Your task to perform on an android device: Open Amazon Image 0: 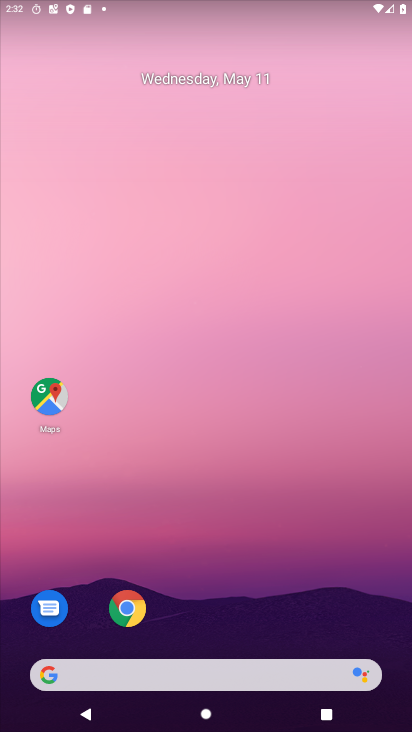
Step 0: click (138, 608)
Your task to perform on an android device: Open Amazon Image 1: 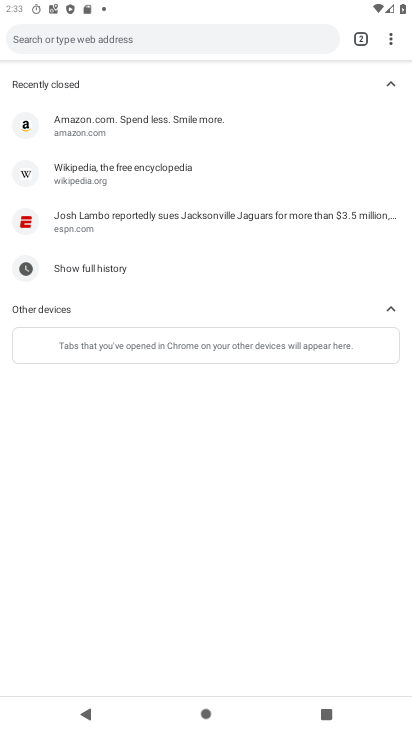
Step 1: click (150, 123)
Your task to perform on an android device: Open Amazon Image 2: 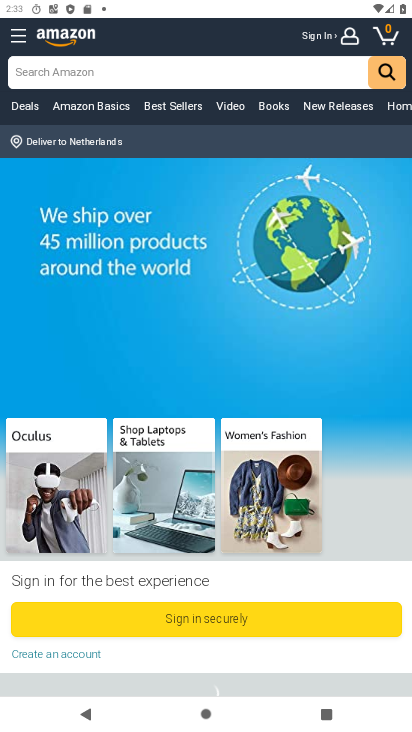
Step 2: task complete